Your task to perform on an android device: open app "Facebook" (install if not already installed) and enter user name: "resultants@gmail.com" and password: "earned" Image 0: 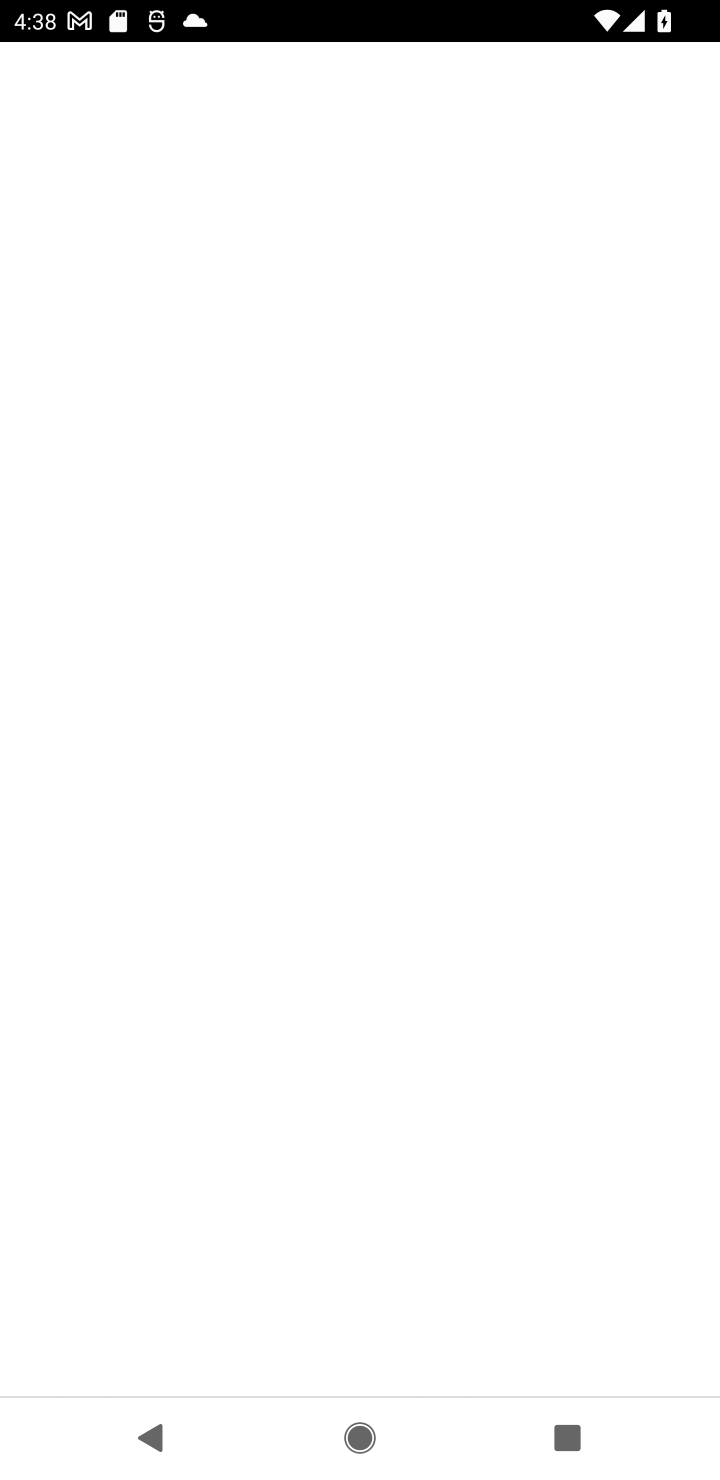
Step 0: press home button
Your task to perform on an android device: open app "Facebook" (install if not already installed) and enter user name: "resultants@gmail.com" and password: "earned" Image 1: 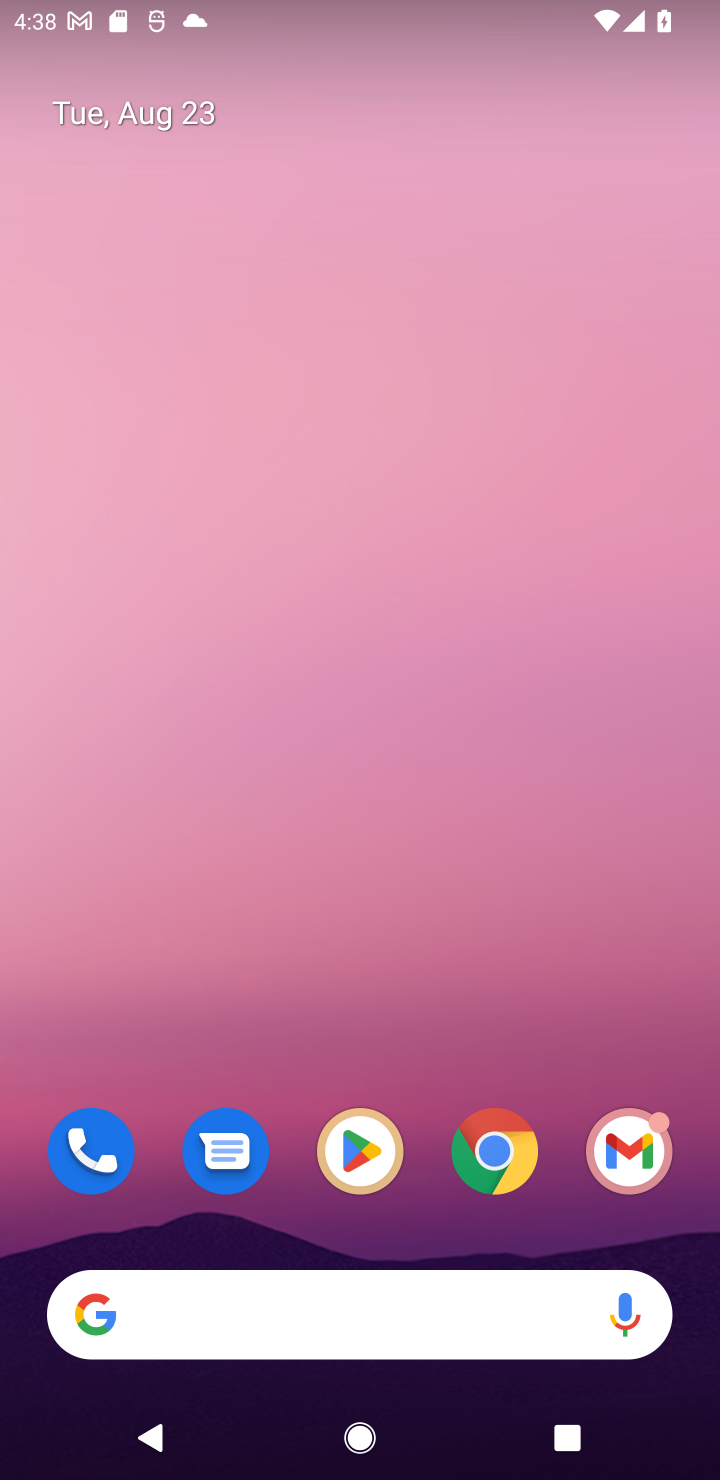
Step 1: click (369, 1129)
Your task to perform on an android device: open app "Facebook" (install if not already installed) and enter user name: "resultants@gmail.com" and password: "earned" Image 2: 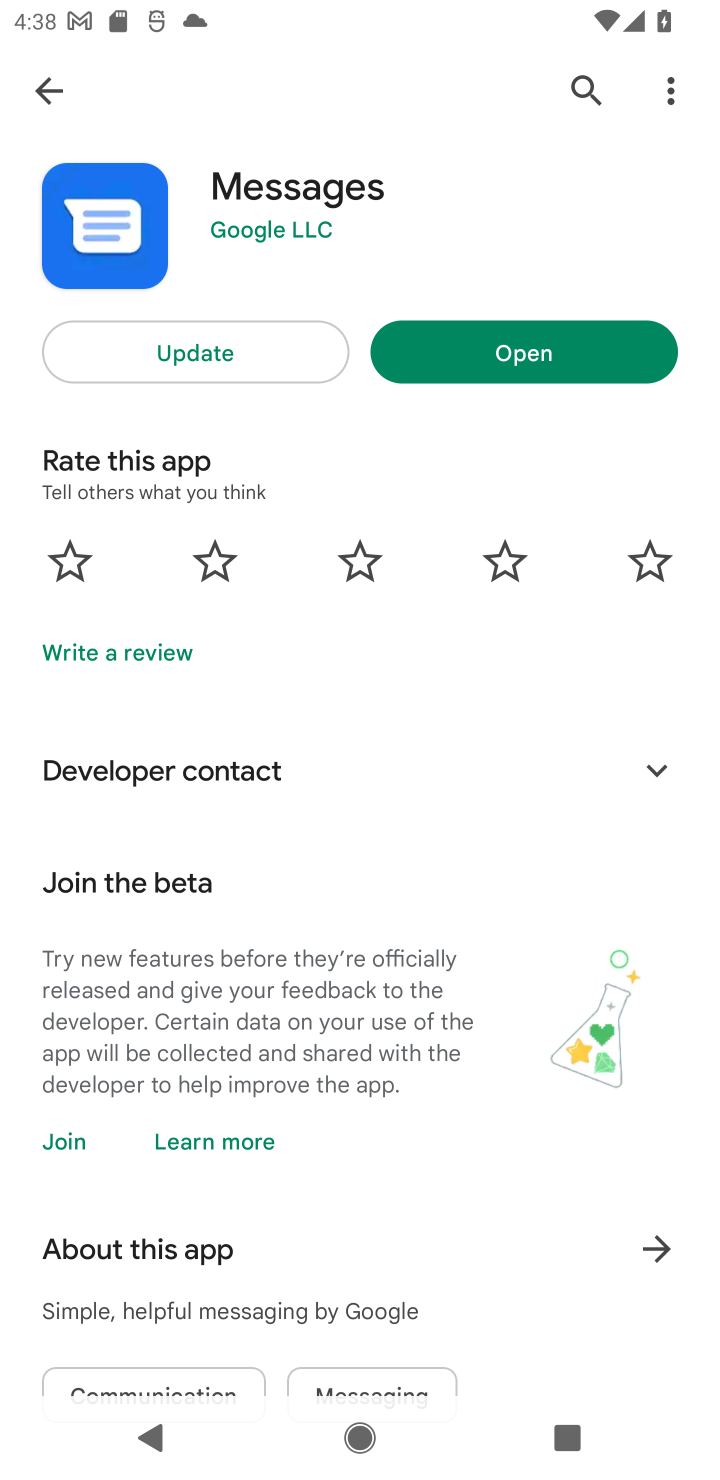
Step 2: click (575, 76)
Your task to perform on an android device: open app "Facebook" (install if not already installed) and enter user name: "resultants@gmail.com" and password: "earned" Image 3: 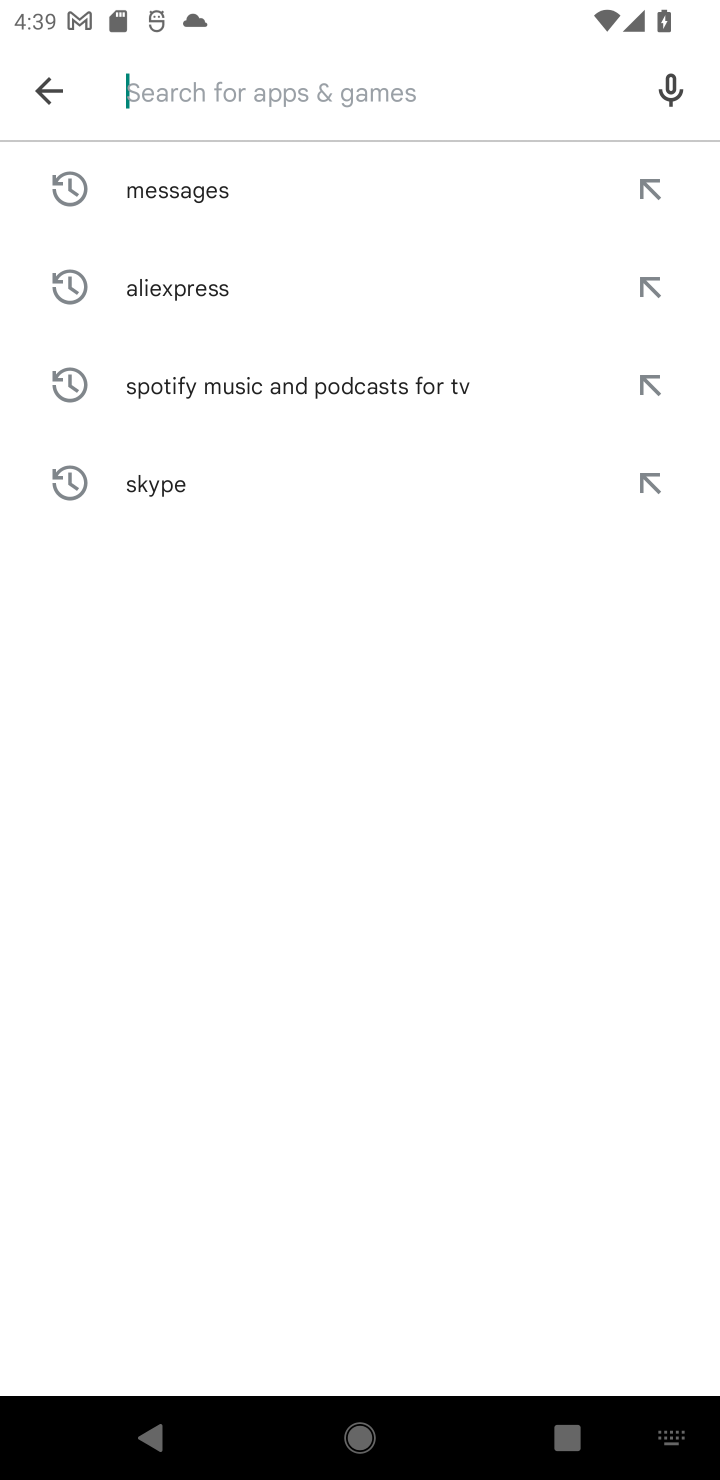
Step 3: type "Facebook"
Your task to perform on an android device: open app "Facebook" (install if not already installed) and enter user name: "resultants@gmail.com" and password: "earned" Image 4: 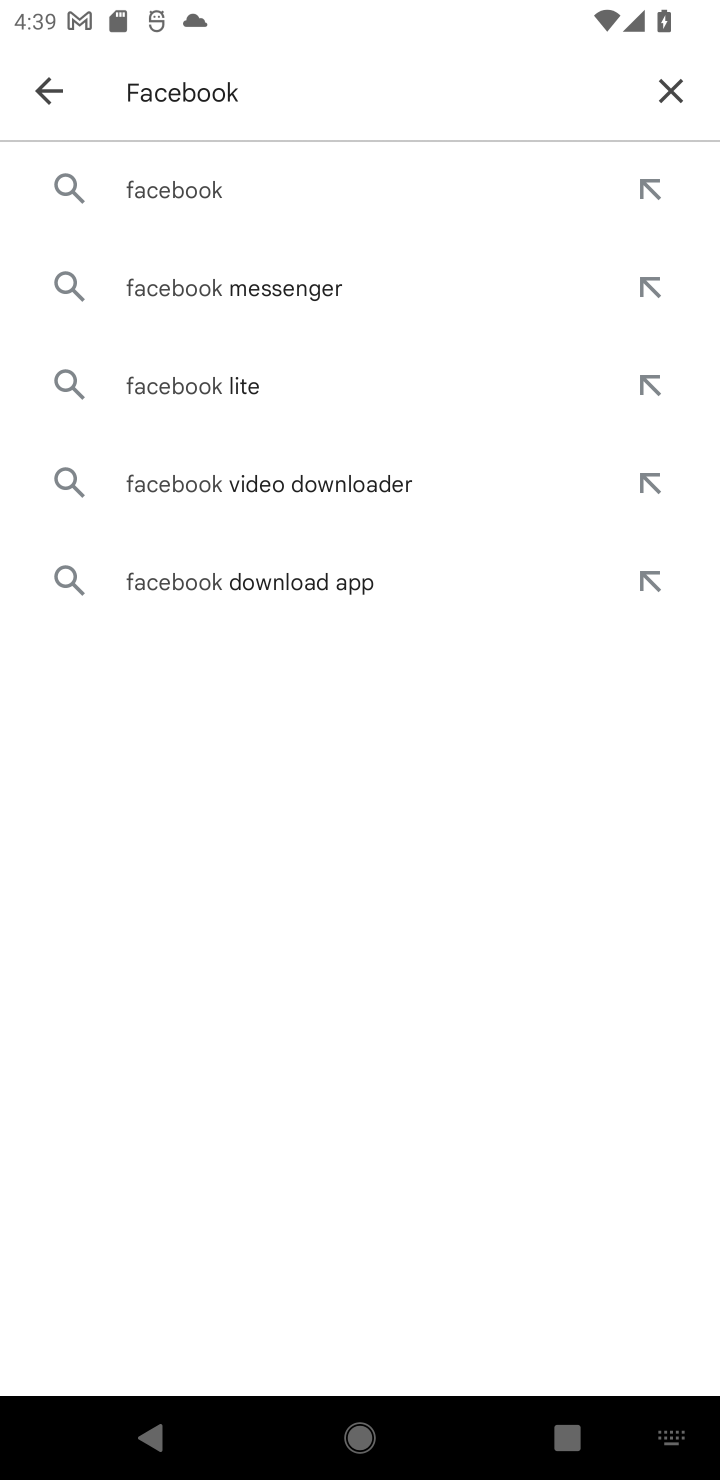
Step 4: click (198, 189)
Your task to perform on an android device: open app "Facebook" (install if not already installed) and enter user name: "resultants@gmail.com" and password: "earned" Image 5: 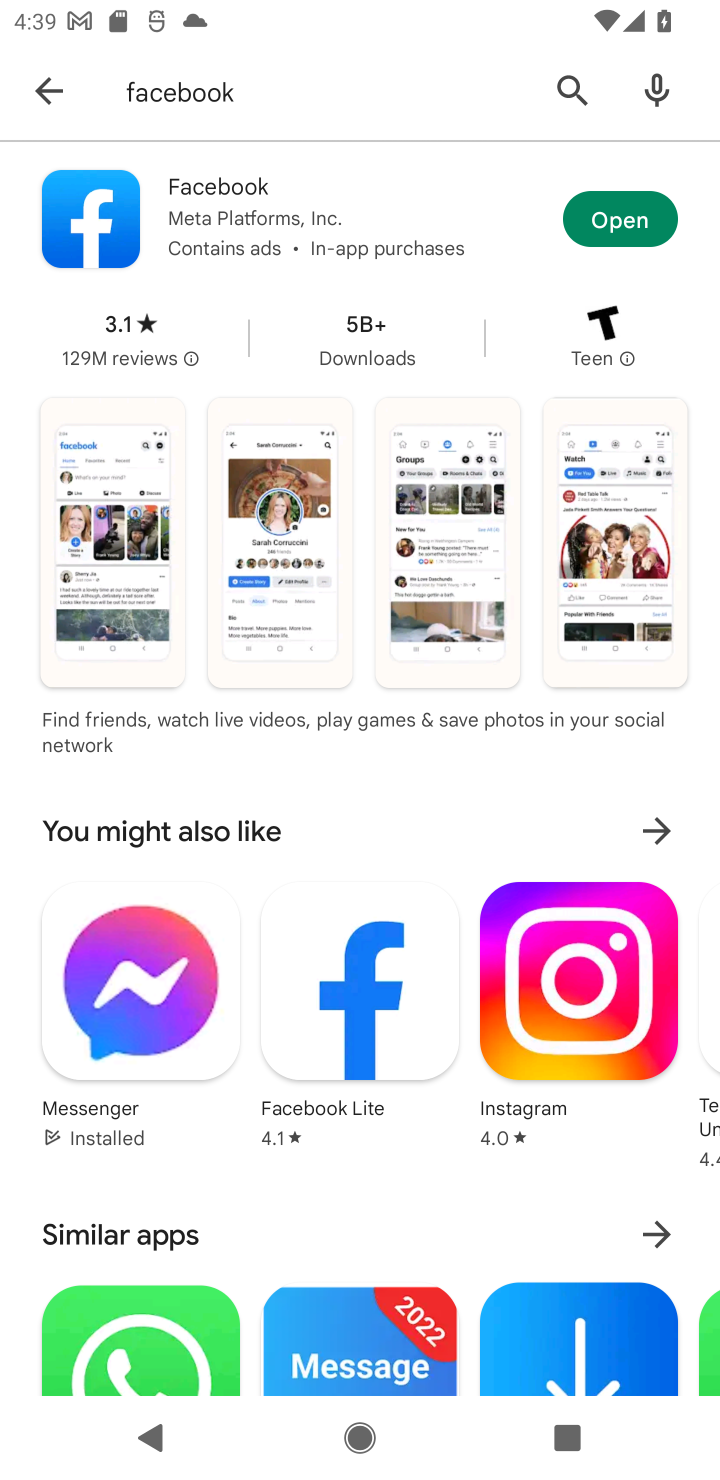
Step 5: click (649, 226)
Your task to perform on an android device: open app "Facebook" (install if not already installed) and enter user name: "resultants@gmail.com" and password: "earned" Image 6: 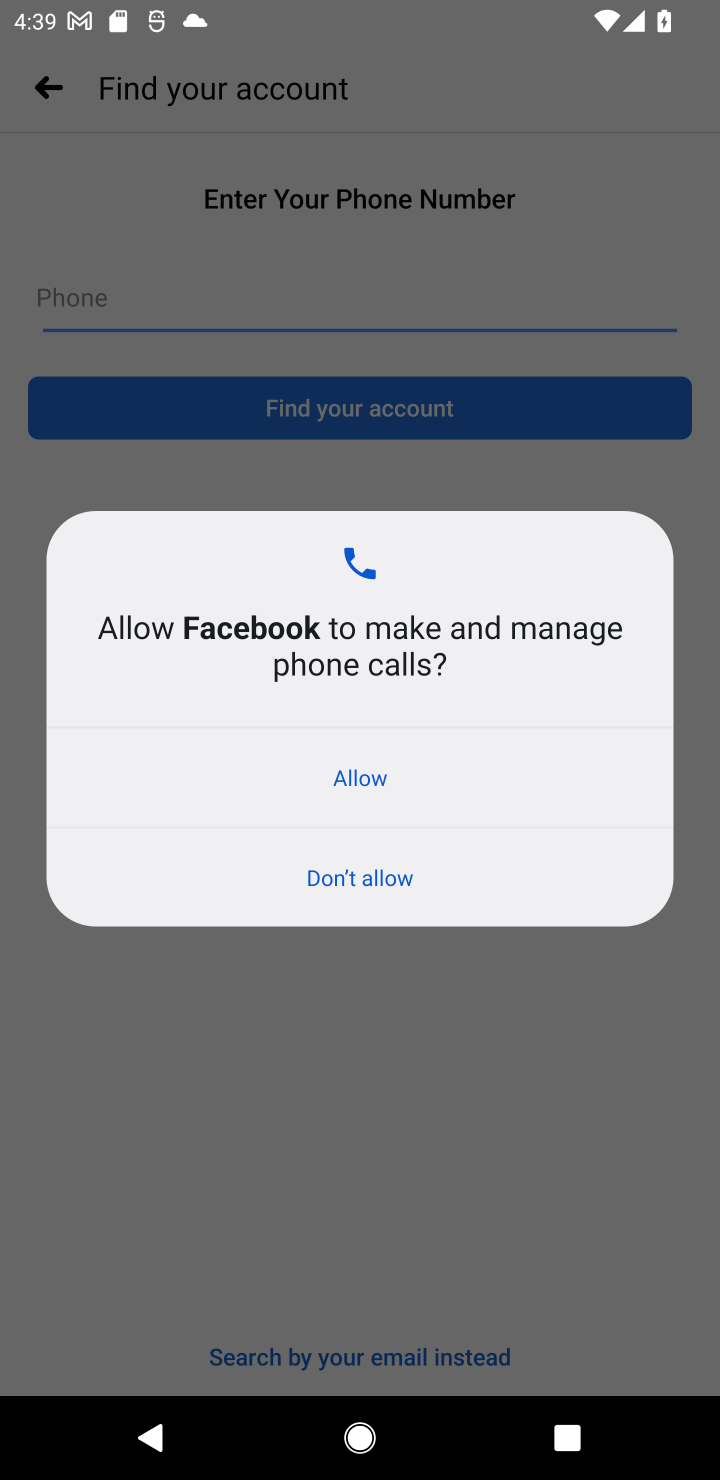
Step 6: click (358, 751)
Your task to perform on an android device: open app "Facebook" (install if not already installed) and enter user name: "resultants@gmail.com" and password: "earned" Image 7: 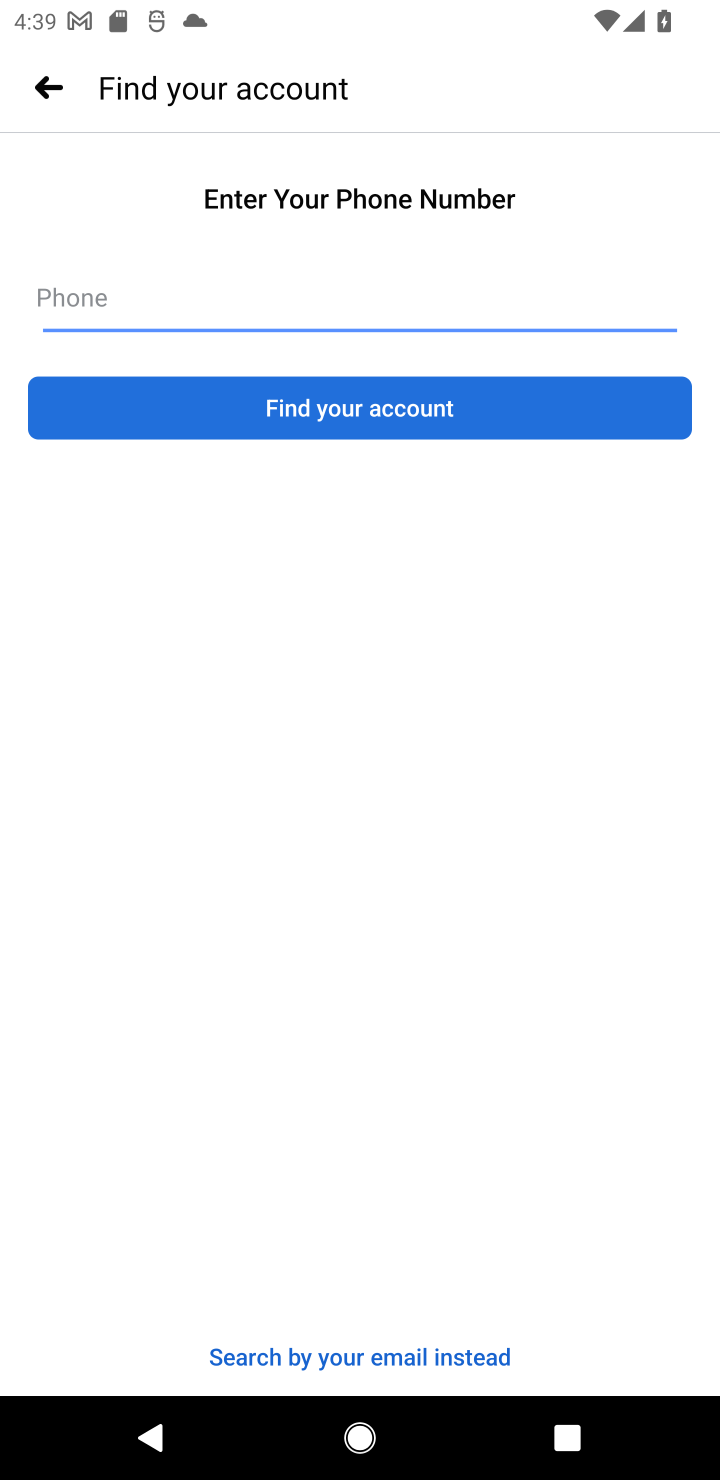
Step 7: click (156, 287)
Your task to perform on an android device: open app "Facebook" (install if not already installed) and enter user name: "resultants@gmail.com" and password: "earned" Image 8: 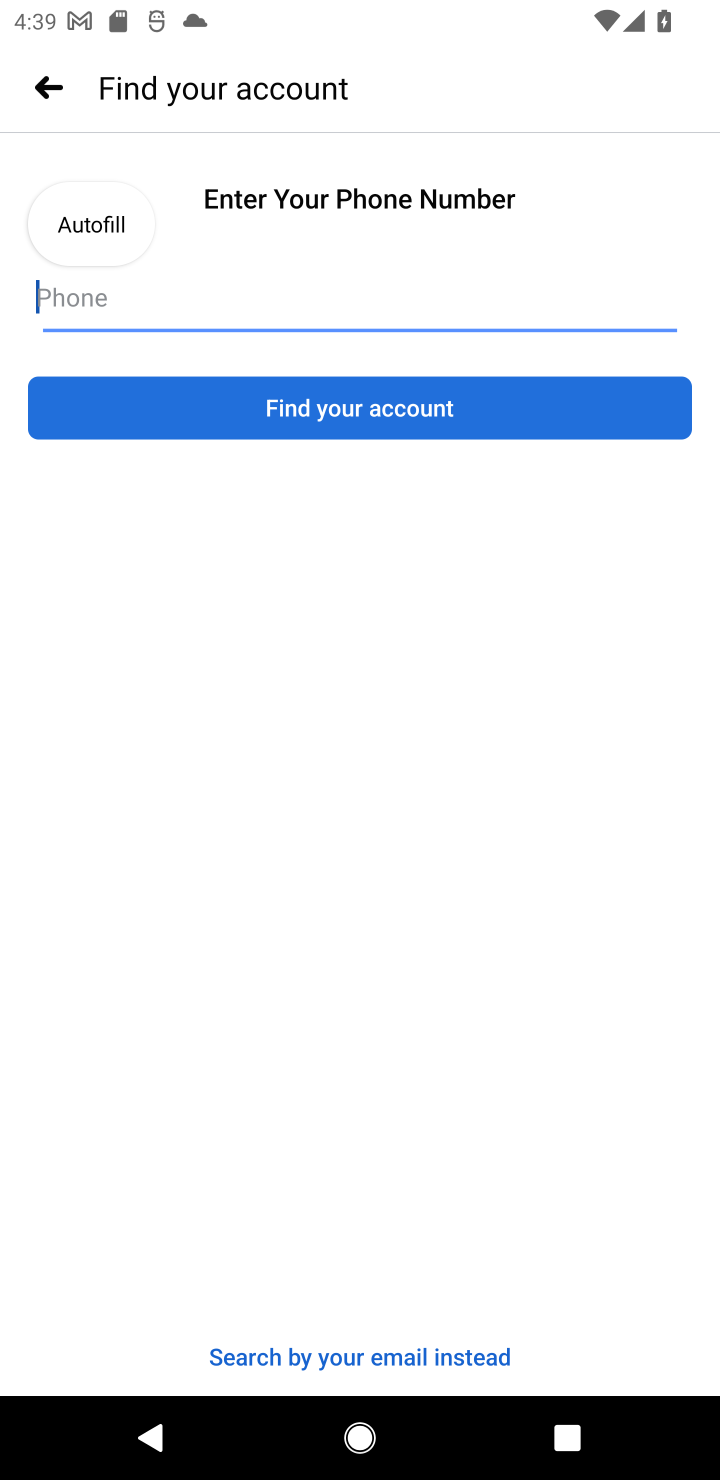
Step 8: task complete